Your task to perform on an android device: What's the weather? Image 0: 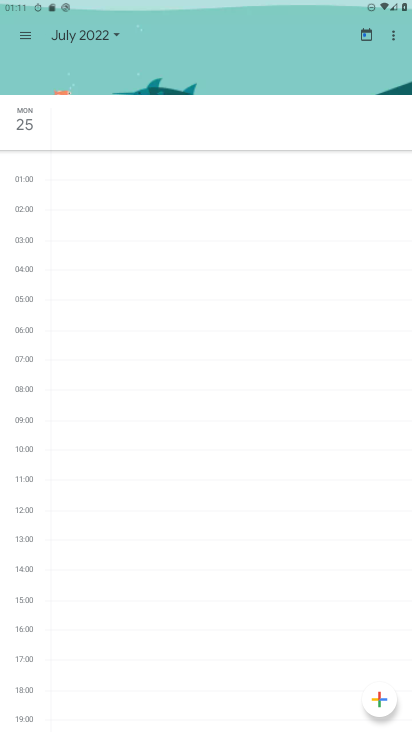
Step 0: press home button
Your task to perform on an android device: What's the weather? Image 1: 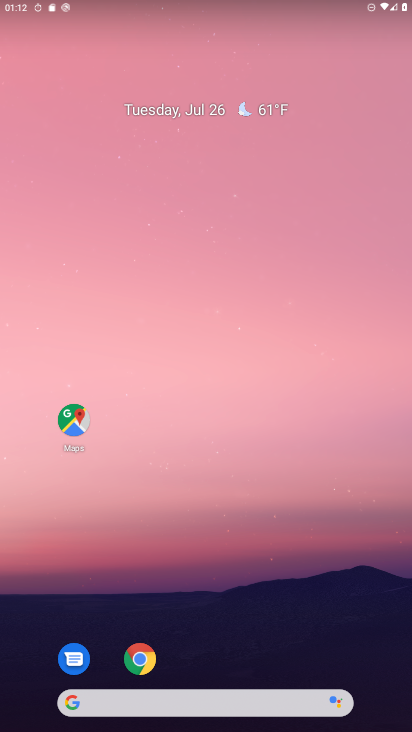
Step 1: click (110, 696)
Your task to perform on an android device: What's the weather? Image 2: 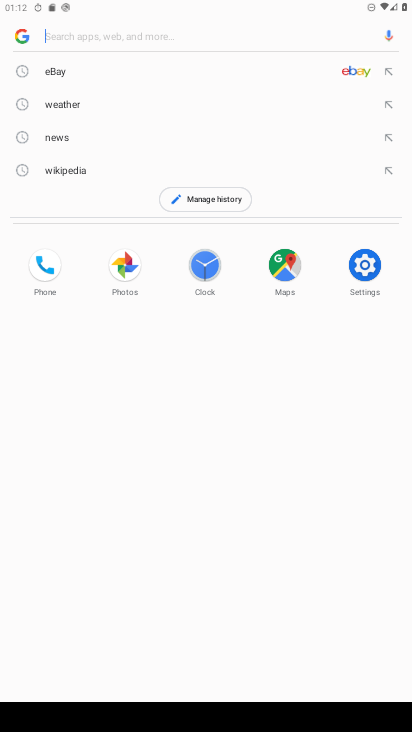
Step 2: type "What's the weather?"
Your task to perform on an android device: What's the weather? Image 3: 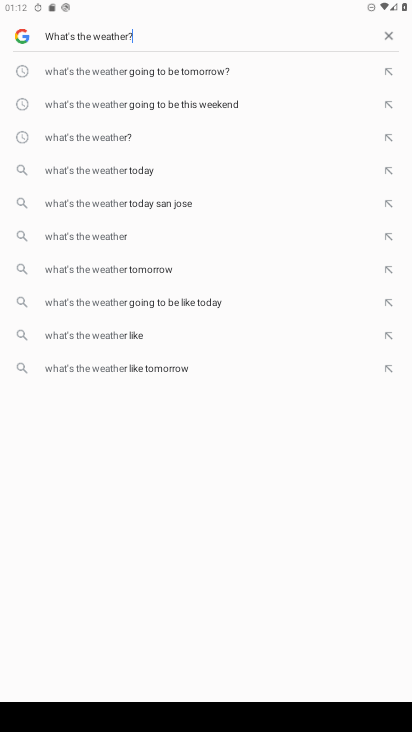
Step 3: type ""
Your task to perform on an android device: What's the weather? Image 4: 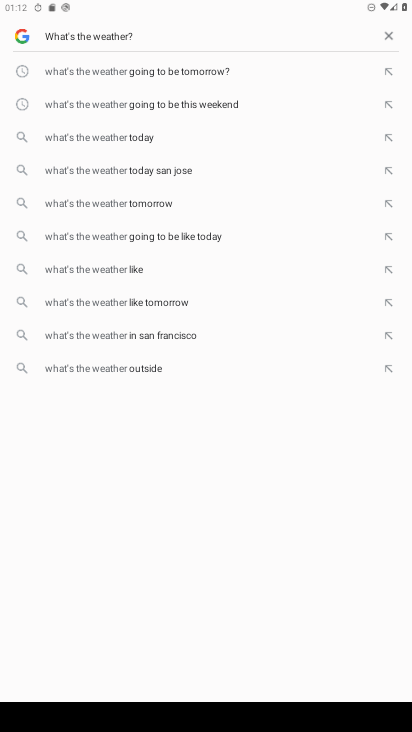
Step 4: task complete